Your task to perform on an android device: turn off priority inbox in the gmail app Image 0: 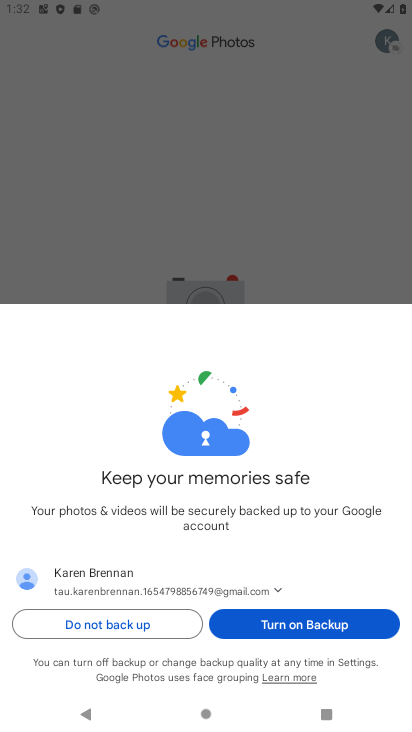
Step 0: task complete